Your task to perform on an android device: add a contact in the contacts app Image 0: 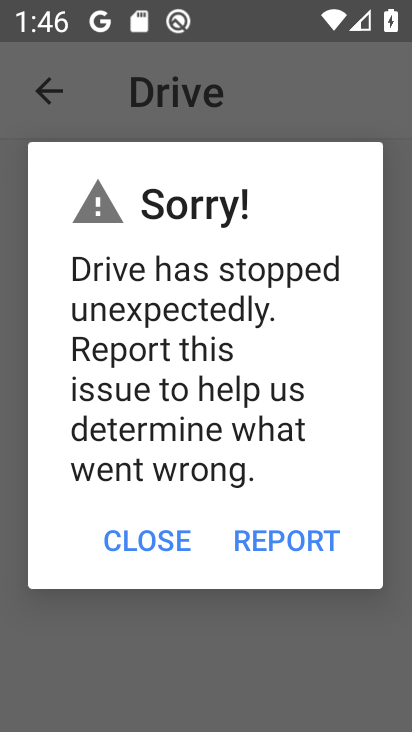
Step 0: press home button
Your task to perform on an android device: add a contact in the contacts app Image 1: 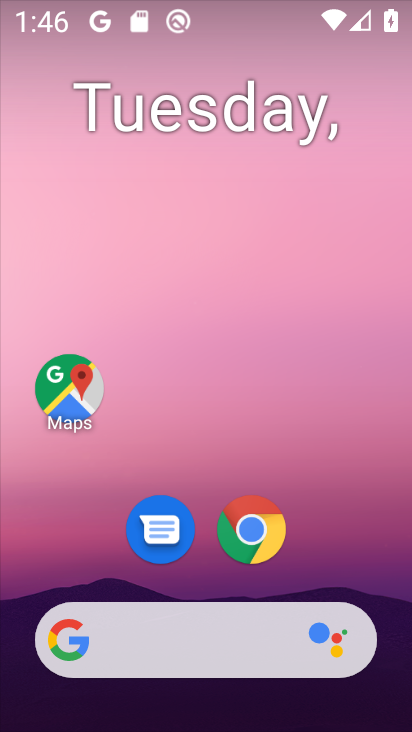
Step 1: drag from (364, 580) to (359, 138)
Your task to perform on an android device: add a contact in the contacts app Image 2: 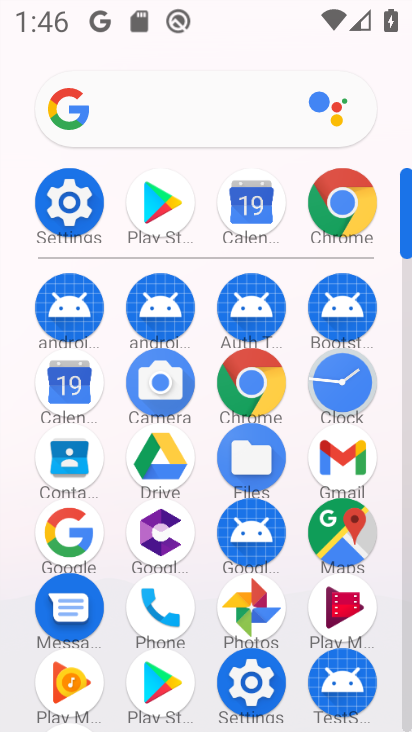
Step 2: click (58, 458)
Your task to perform on an android device: add a contact in the contacts app Image 3: 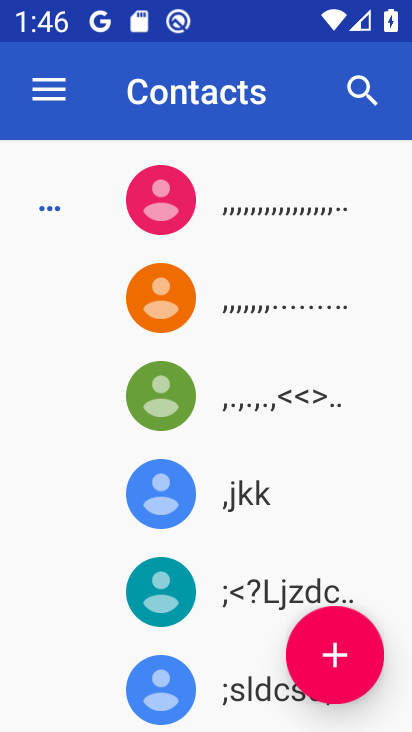
Step 3: click (333, 635)
Your task to perform on an android device: add a contact in the contacts app Image 4: 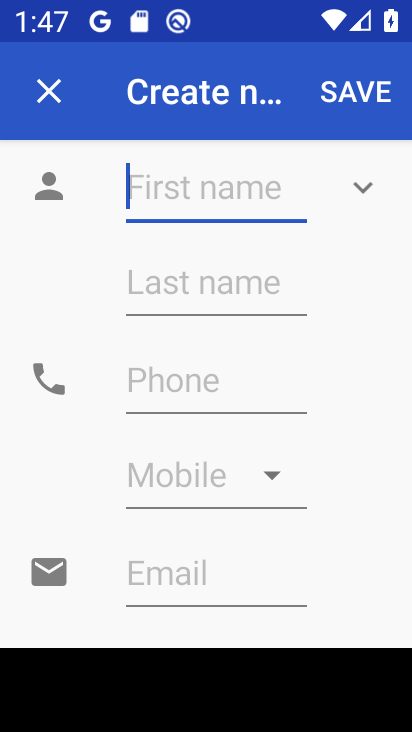
Step 4: type "hjdhbdccbcc"
Your task to perform on an android device: add a contact in the contacts app Image 5: 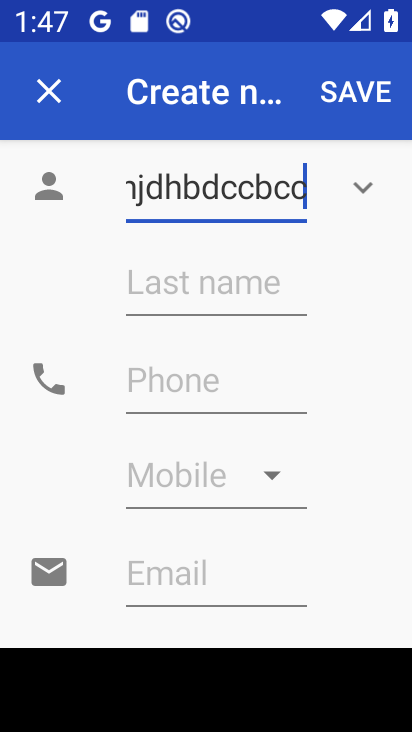
Step 5: click (248, 291)
Your task to perform on an android device: add a contact in the contacts app Image 6: 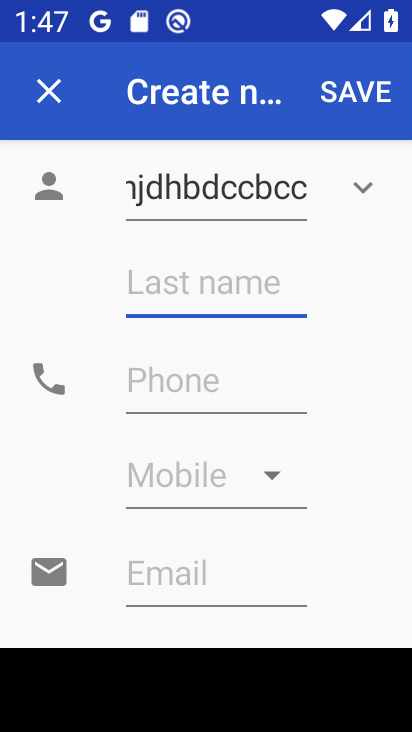
Step 6: type "sgvgcvgcvgc"
Your task to perform on an android device: add a contact in the contacts app Image 7: 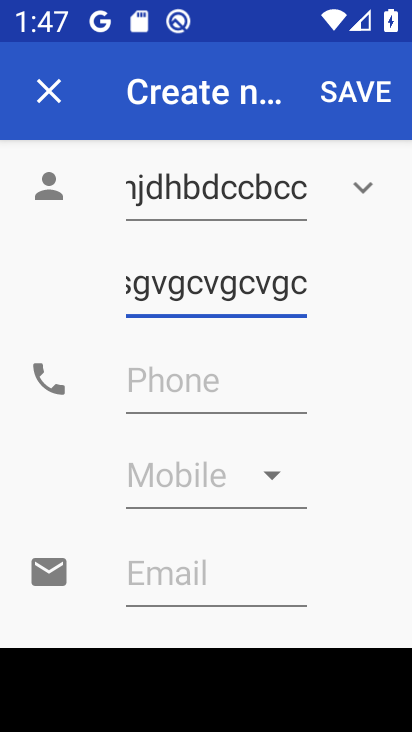
Step 7: click (165, 400)
Your task to perform on an android device: add a contact in the contacts app Image 8: 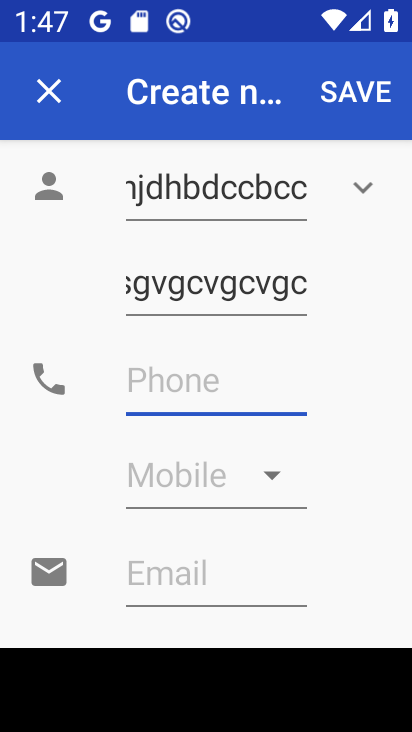
Step 8: type "835465462354"
Your task to perform on an android device: add a contact in the contacts app Image 9: 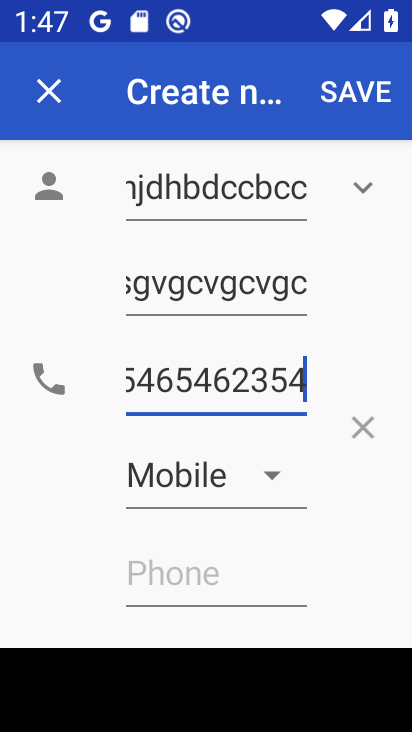
Step 9: click (346, 95)
Your task to perform on an android device: add a contact in the contacts app Image 10: 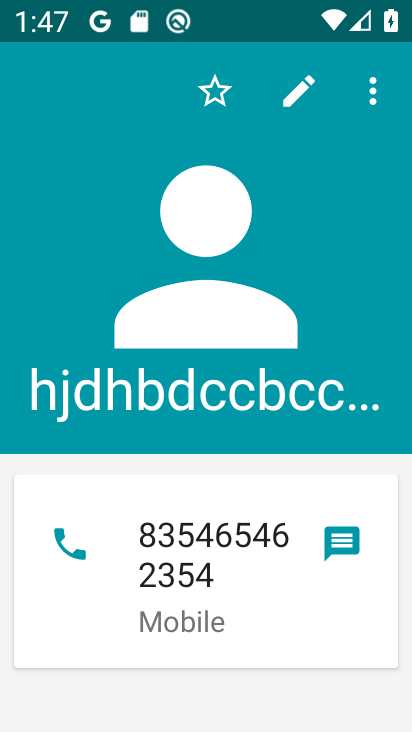
Step 10: task complete